Your task to perform on an android device: Clear the cart on bestbuy. Add lg ultragear to the cart on bestbuy Image 0: 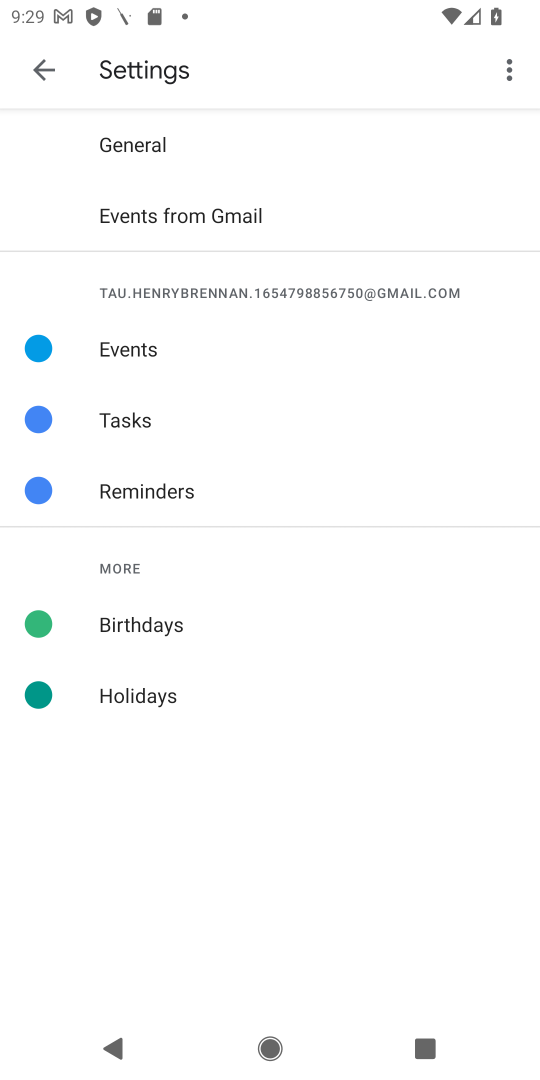
Step 0: press home button
Your task to perform on an android device: Clear the cart on bestbuy. Add lg ultragear to the cart on bestbuy Image 1: 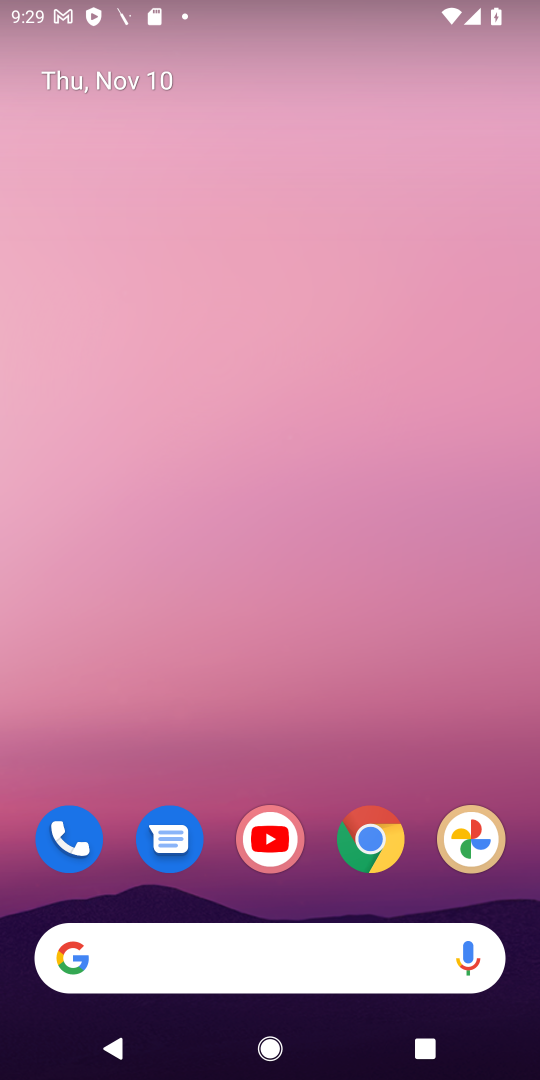
Step 1: click (382, 837)
Your task to perform on an android device: Clear the cart on bestbuy. Add lg ultragear to the cart on bestbuy Image 2: 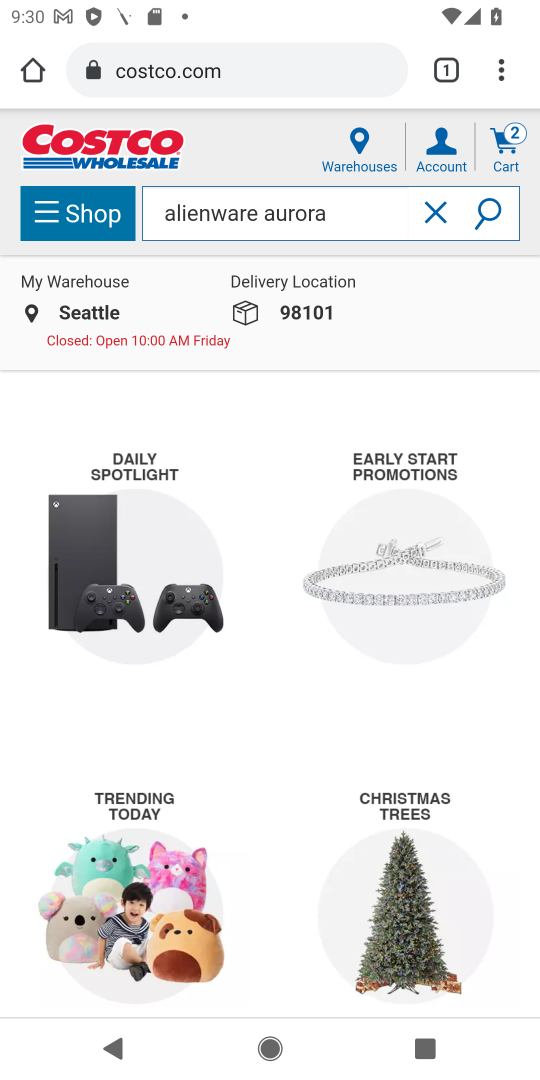
Step 2: click (314, 48)
Your task to perform on an android device: Clear the cart on bestbuy. Add lg ultragear to the cart on bestbuy Image 3: 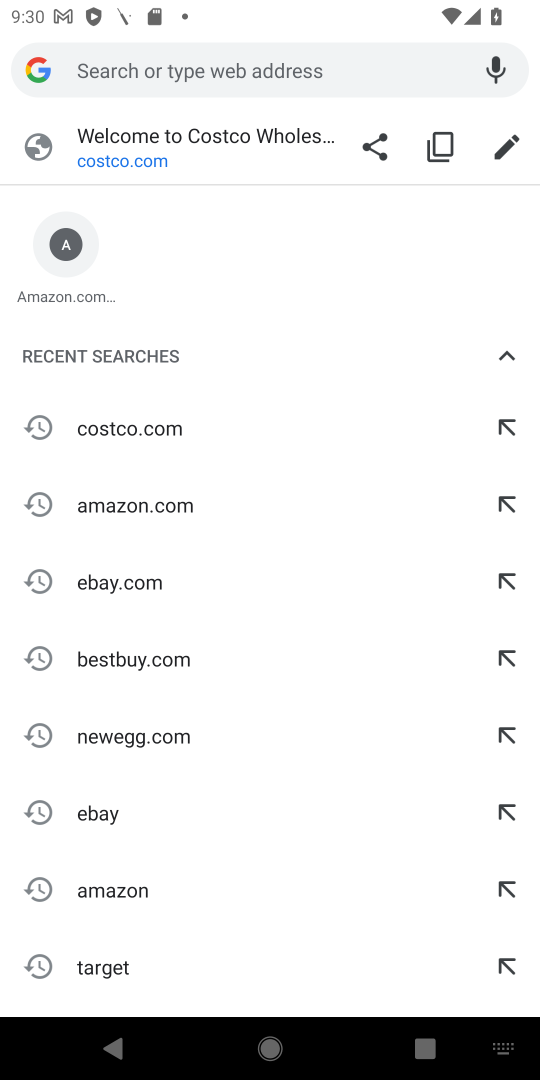
Step 3: click (177, 660)
Your task to perform on an android device: Clear the cart on bestbuy. Add lg ultragear to the cart on bestbuy Image 4: 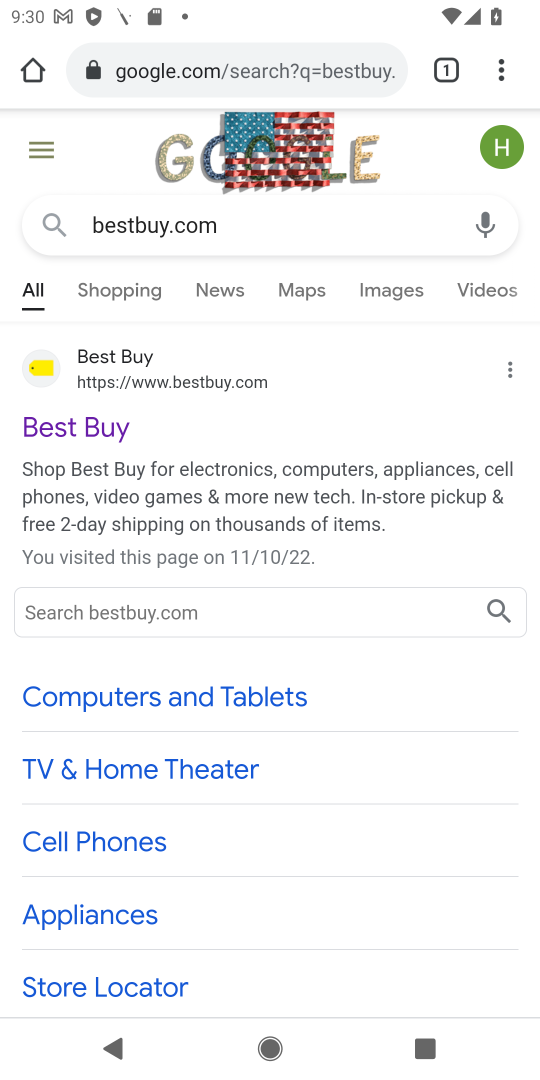
Step 4: click (230, 383)
Your task to perform on an android device: Clear the cart on bestbuy. Add lg ultragear to the cart on bestbuy Image 5: 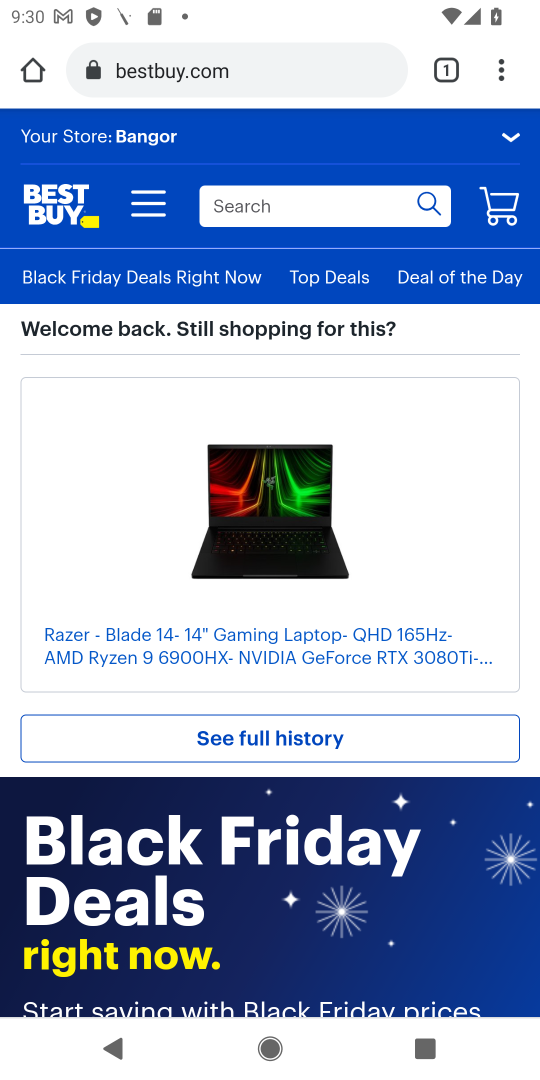
Step 5: click (377, 201)
Your task to perform on an android device: Clear the cart on bestbuy. Add lg ultragear to the cart on bestbuy Image 6: 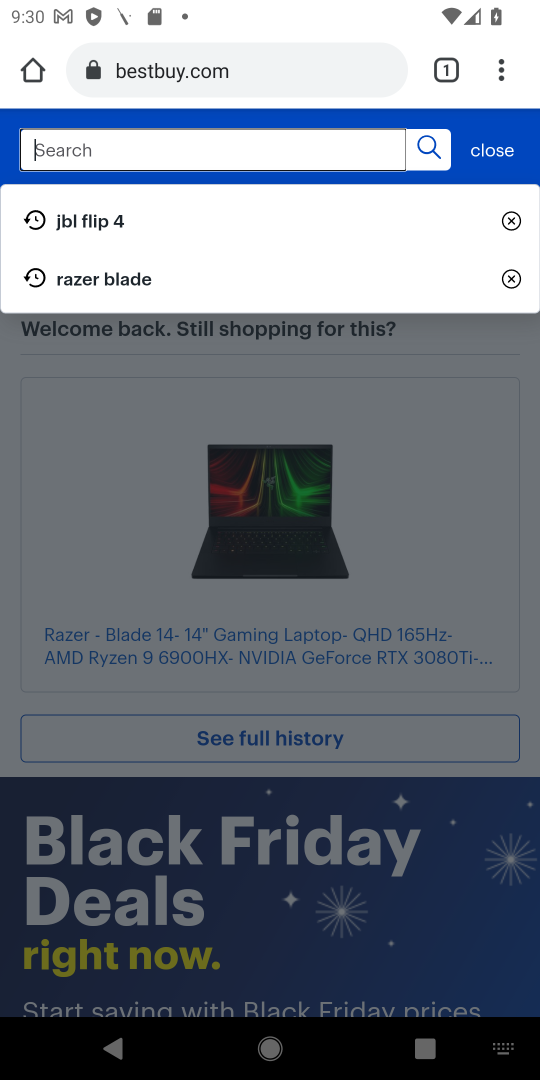
Step 6: type "lg ultragear"
Your task to perform on an android device: Clear the cart on bestbuy. Add lg ultragear to the cart on bestbuy Image 7: 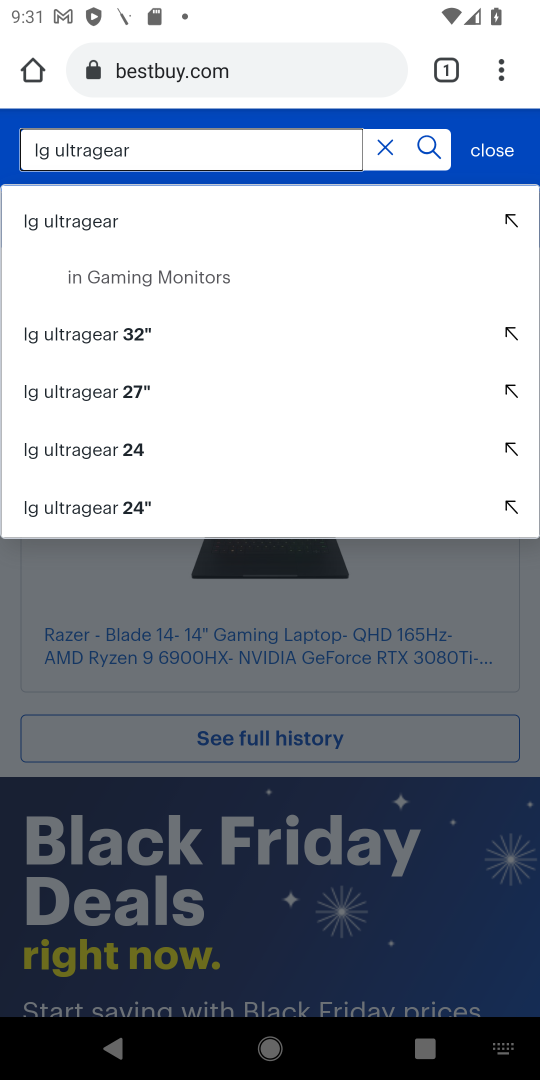
Step 7: click (80, 227)
Your task to perform on an android device: Clear the cart on bestbuy. Add lg ultragear to the cart on bestbuy Image 8: 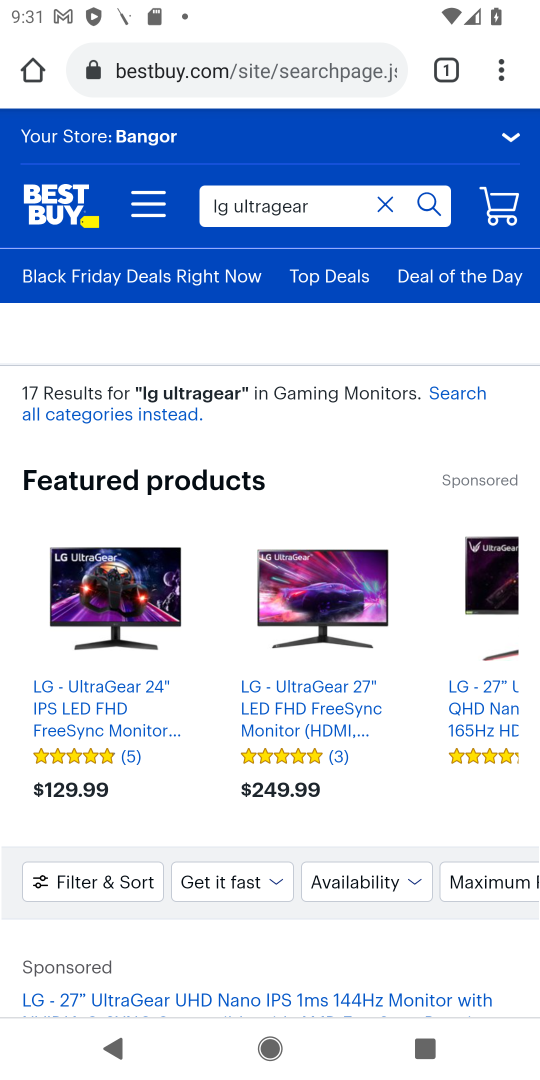
Step 8: click (124, 607)
Your task to perform on an android device: Clear the cart on bestbuy. Add lg ultragear to the cart on bestbuy Image 9: 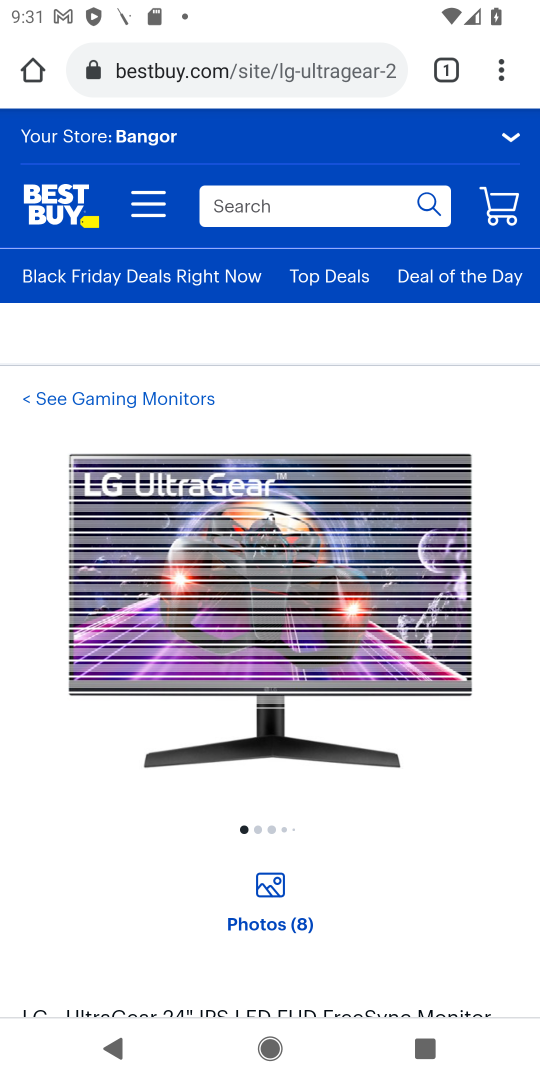
Step 9: drag from (444, 724) to (463, 374)
Your task to perform on an android device: Clear the cart on bestbuy. Add lg ultragear to the cart on bestbuy Image 10: 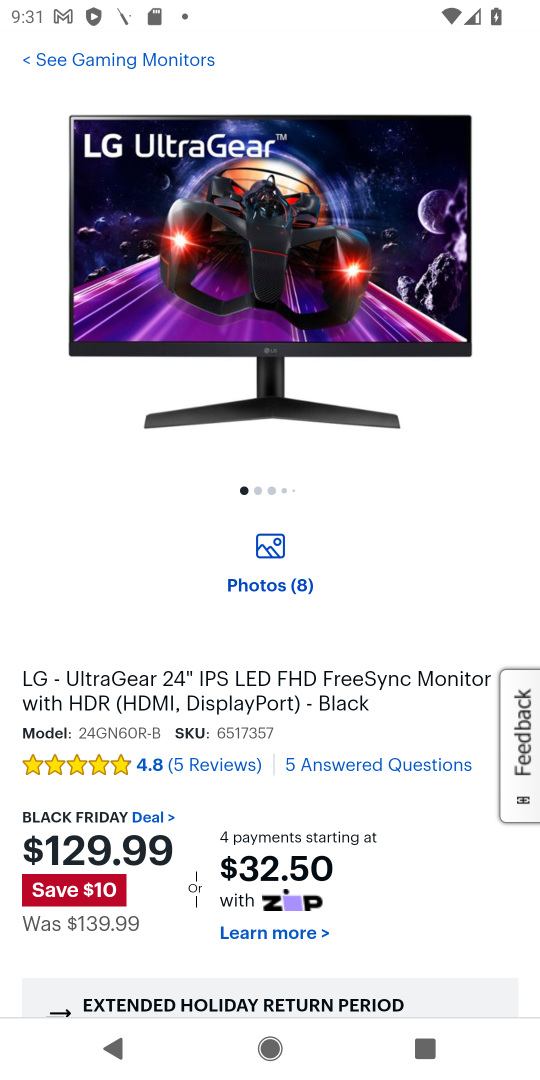
Step 10: drag from (437, 816) to (405, 378)
Your task to perform on an android device: Clear the cart on bestbuy. Add lg ultragear to the cart on bestbuy Image 11: 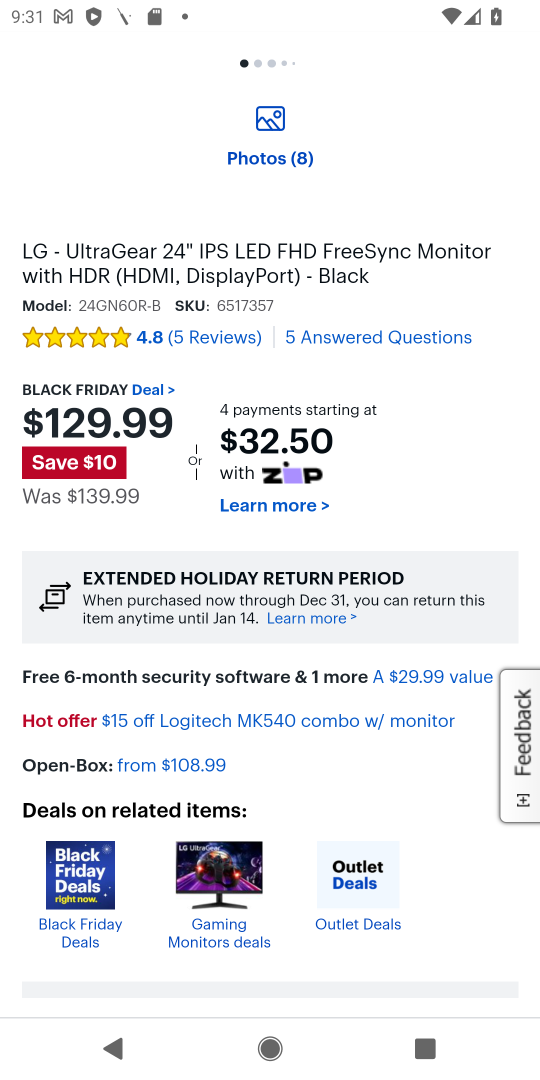
Step 11: drag from (389, 753) to (314, 256)
Your task to perform on an android device: Clear the cart on bestbuy. Add lg ultragear to the cart on bestbuy Image 12: 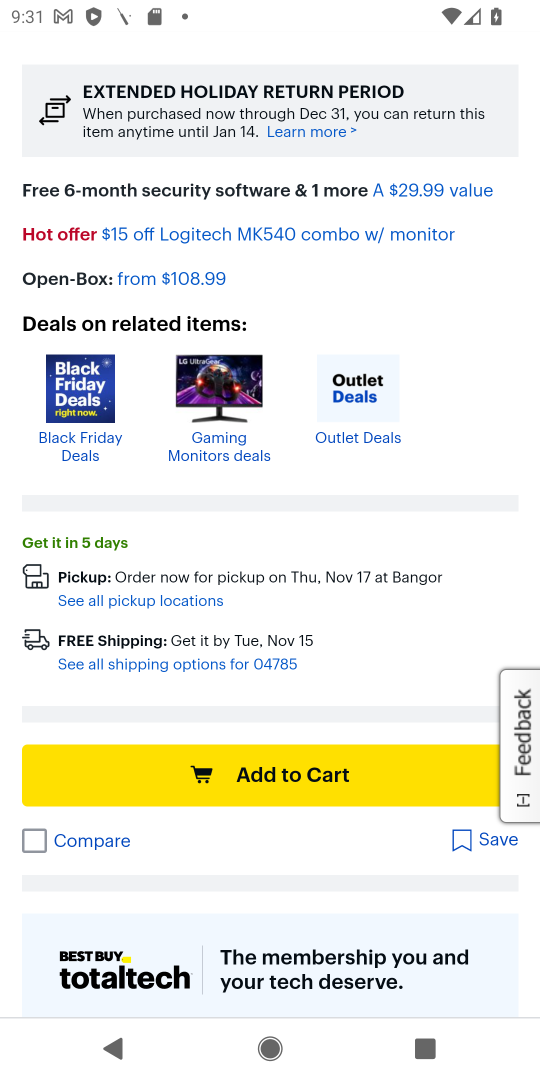
Step 12: click (312, 765)
Your task to perform on an android device: Clear the cart on bestbuy. Add lg ultragear to the cart on bestbuy Image 13: 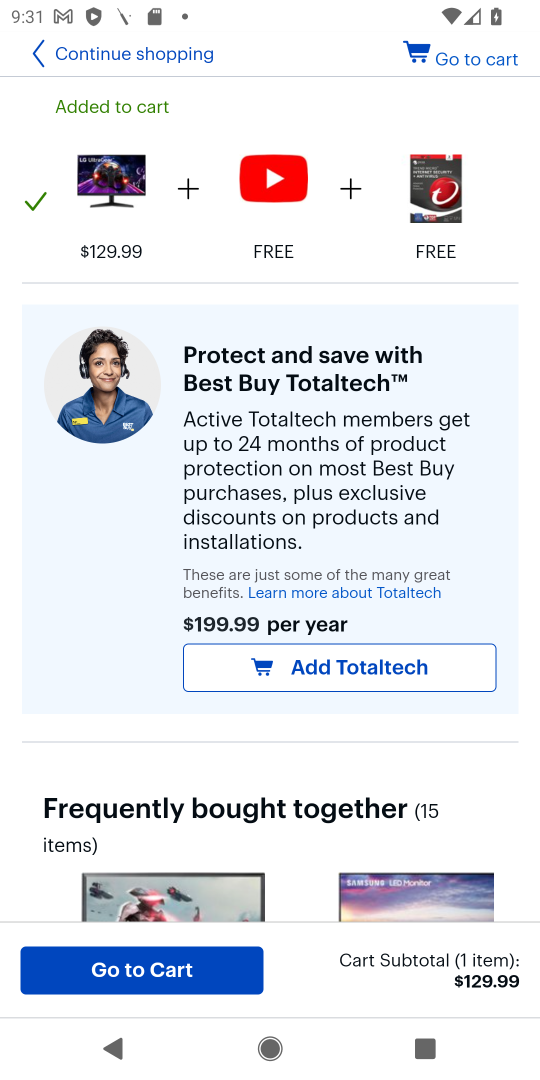
Step 13: task complete